Your task to perform on an android device: toggle sleep mode Image 0: 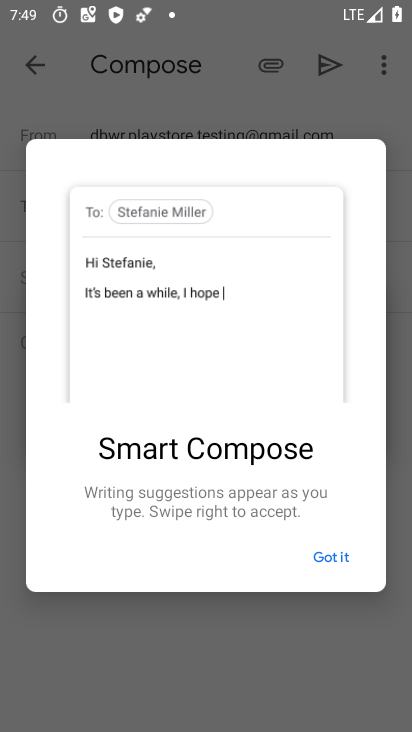
Step 0: press home button
Your task to perform on an android device: toggle sleep mode Image 1: 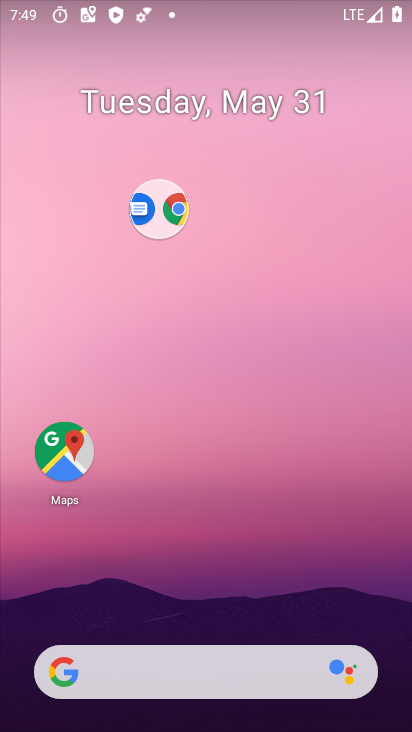
Step 1: drag from (194, 594) to (173, 6)
Your task to perform on an android device: toggle sleep mode Image 2: 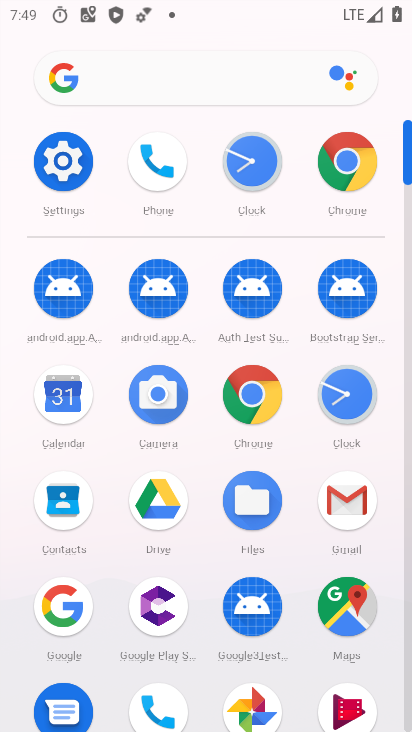
Step 2: click (57, 169)
Your task to perform on an android device: toggle sleep mode Image 3: 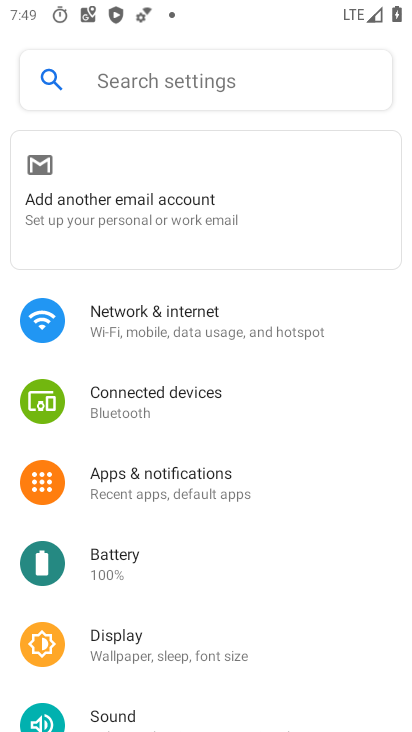
Step 3: task complete